Your task to perform on an android device: Show me recent news Image 0: 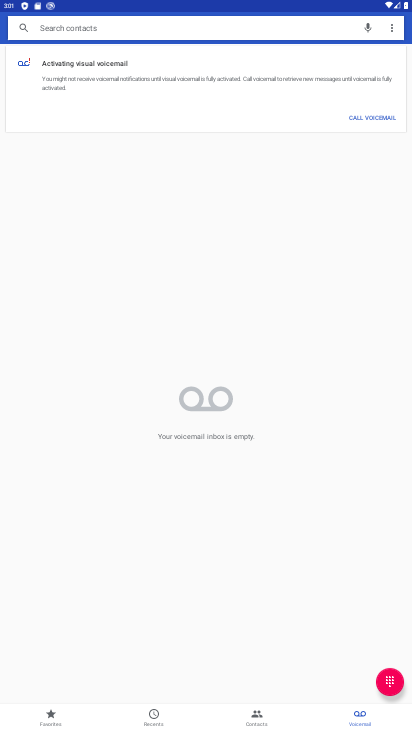
Step 0: press home button
Your task to perform on an android device: Show me recent news Image 1: 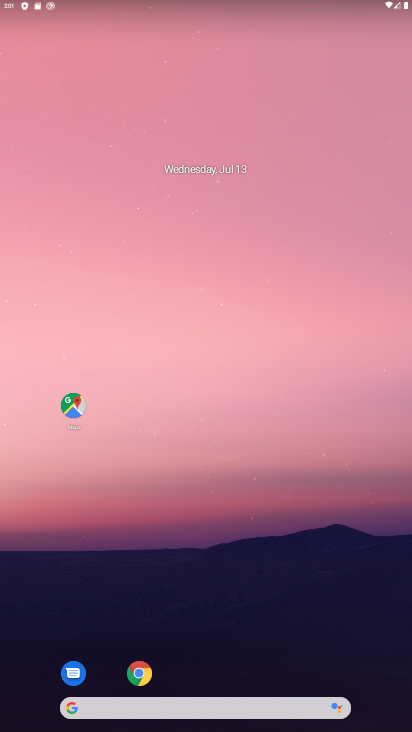
Step 1: task complete